Your task to perform on an android device: find photos in the google photos app Image 0: 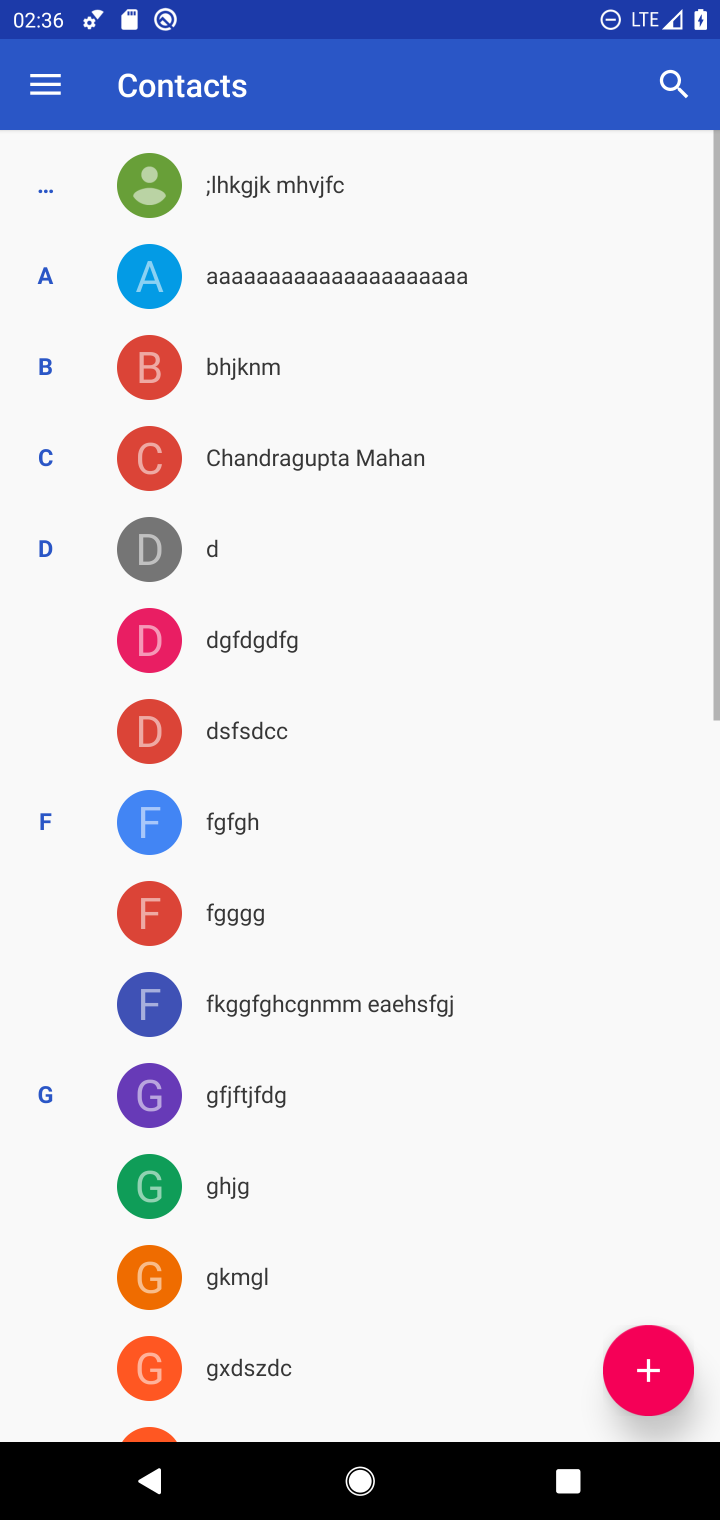
Step 0: press home button
Your task to perform on an android device: find photos in the google photos app Image 1: 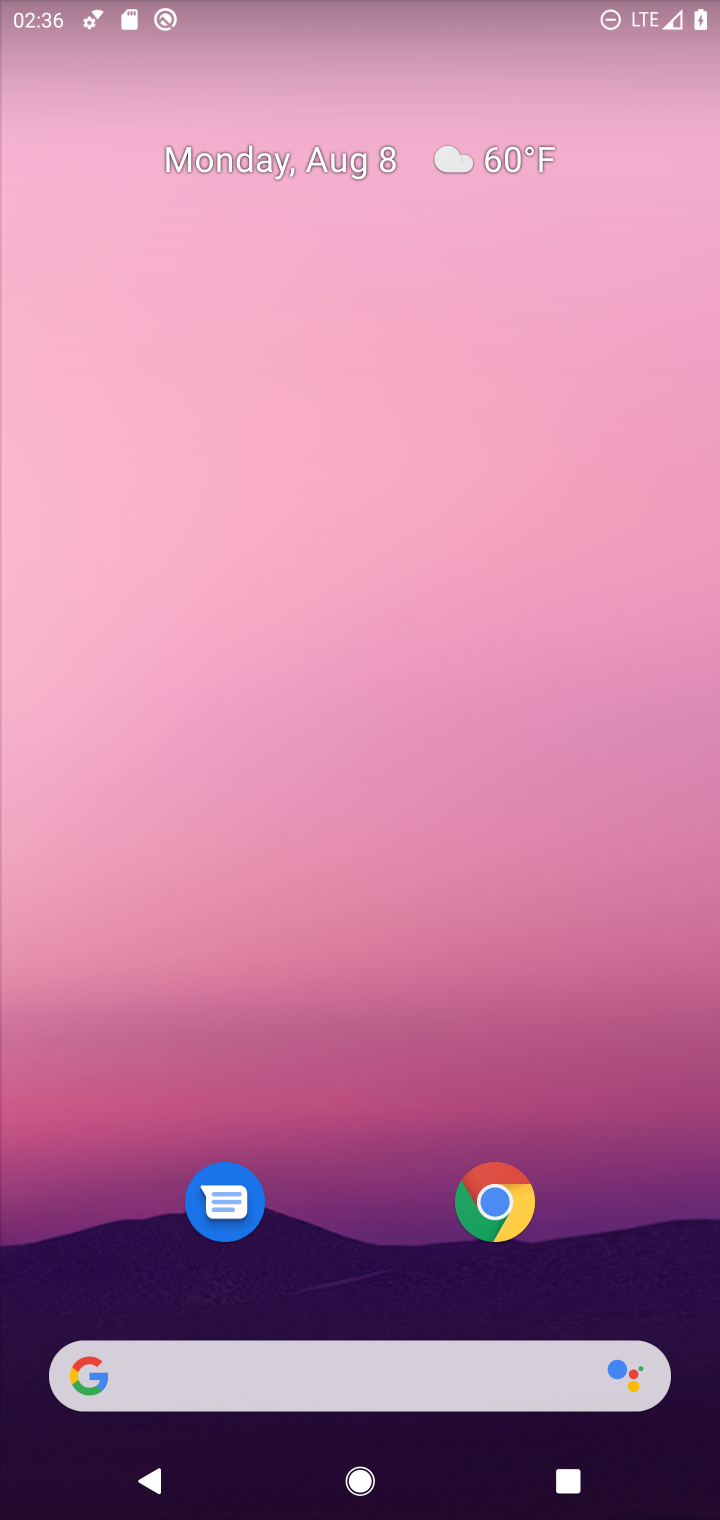
Step 1: press home button
Your task to perform on an android device: find photos in the google photos app Image 2: 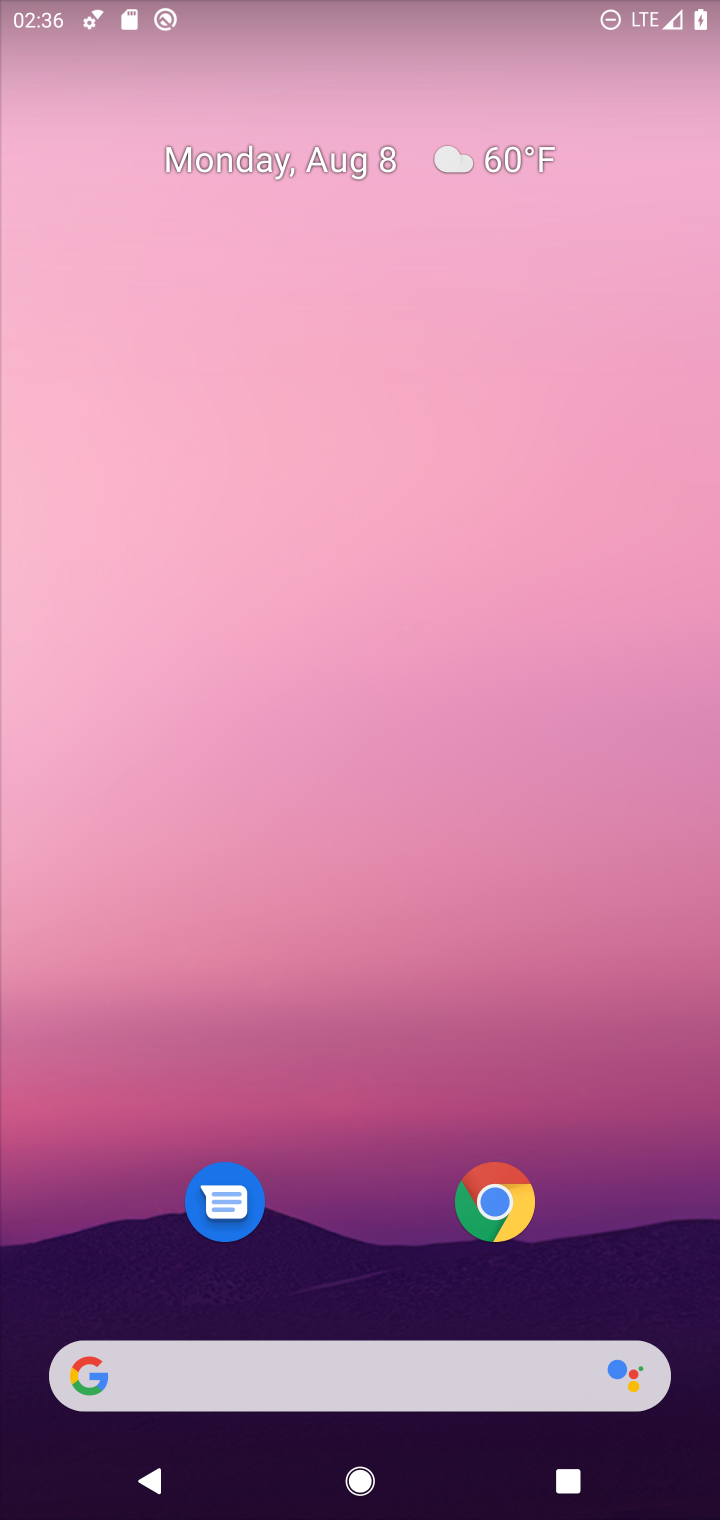
Step 2: drag from (377, 1278) to (420, 443)
Your task to perform on an android device: find photos in the google photos app Image 3: 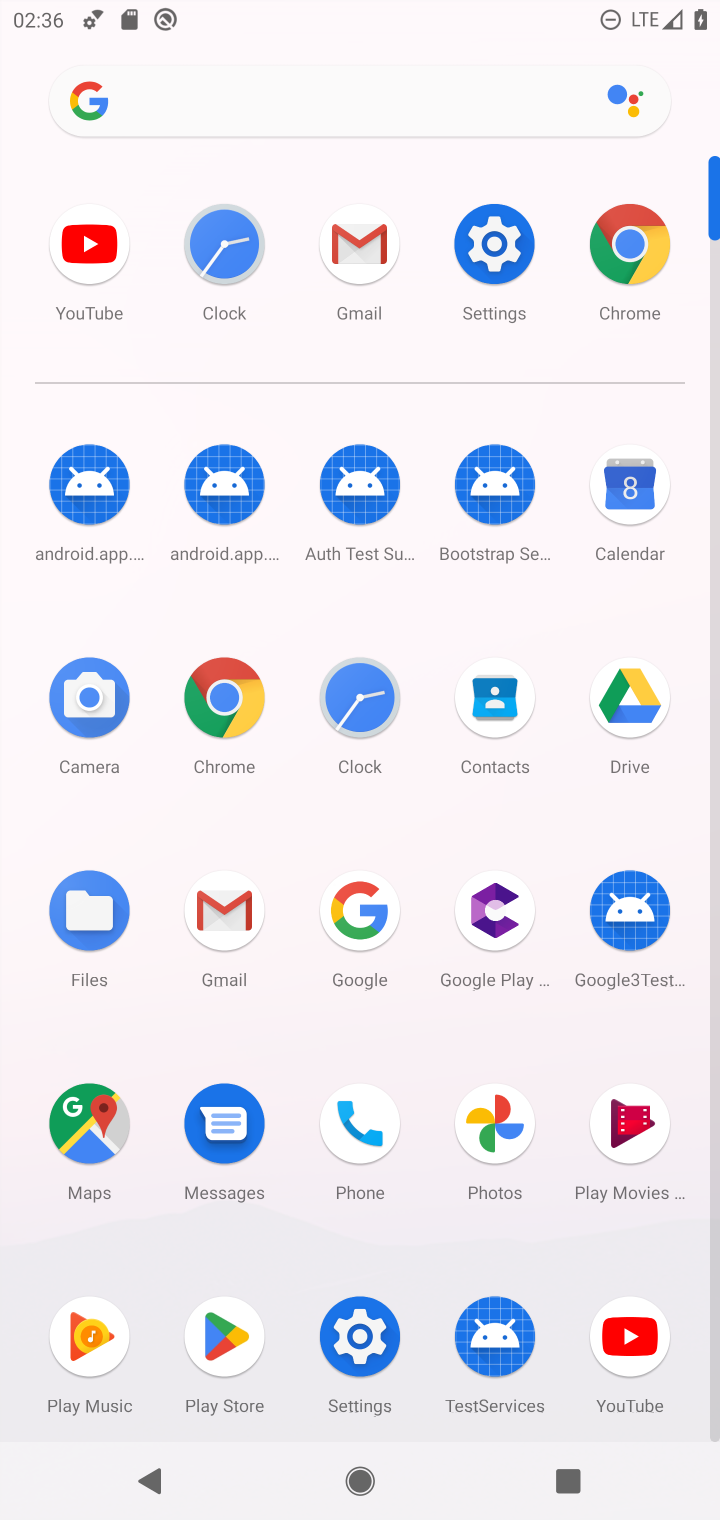
Step 3: click (497, 1115)
Your task to perform on an android device: find photos in the google photos app Image 4: 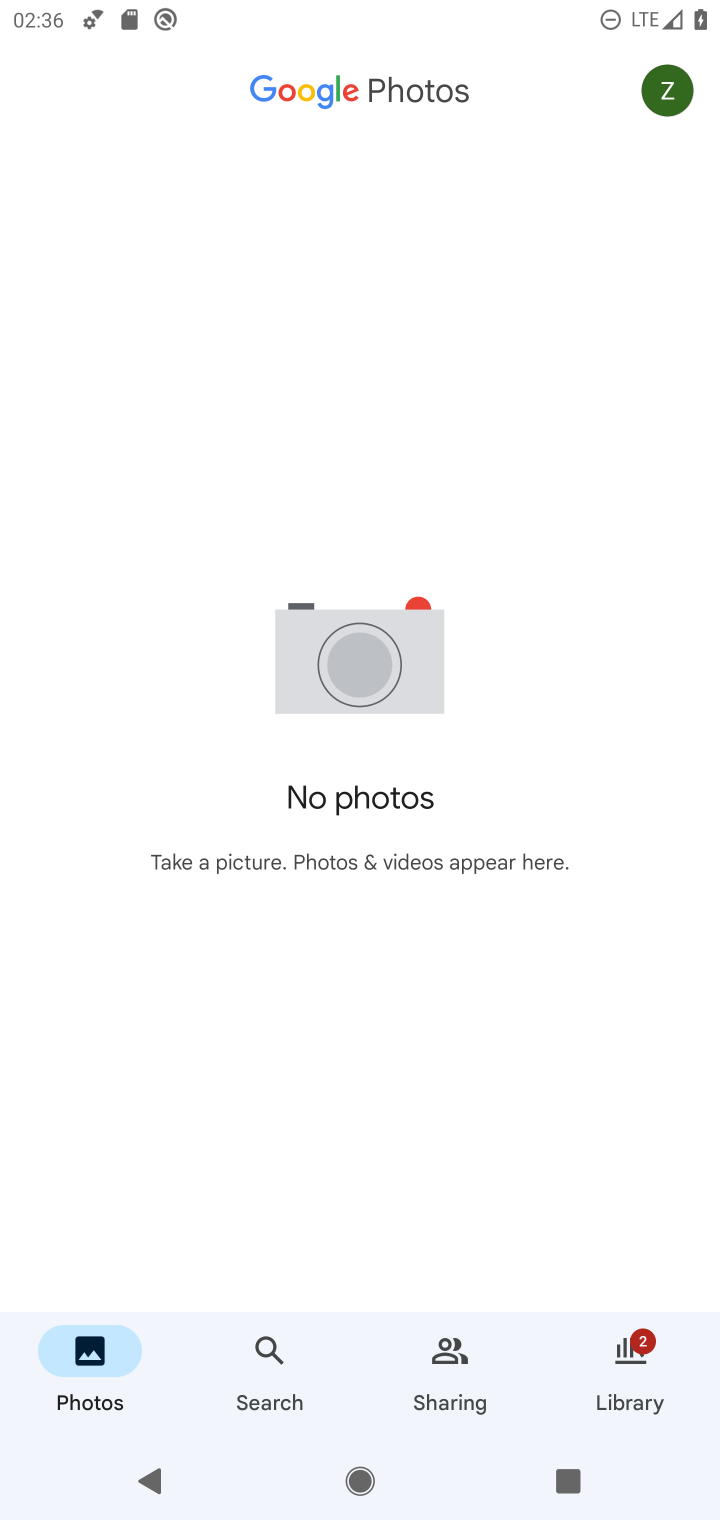
Step 4: task complete